Your task to perform on an android device: Go to Google maps Image 0: 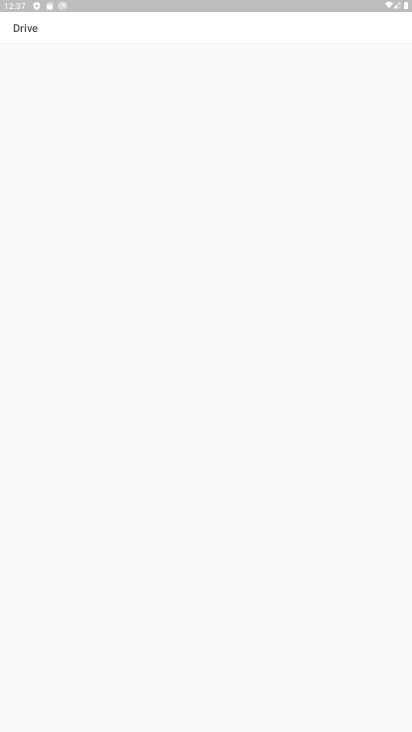
Step 0: press home button
Your task to perform on an android device: Go to Google maps Image 1: 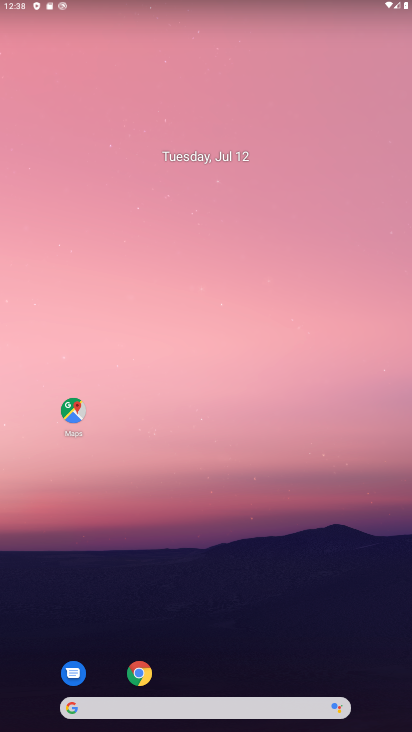
Step 1: click (306, 226)
Your task to perform on an android device: Go to Google maps Image 2: 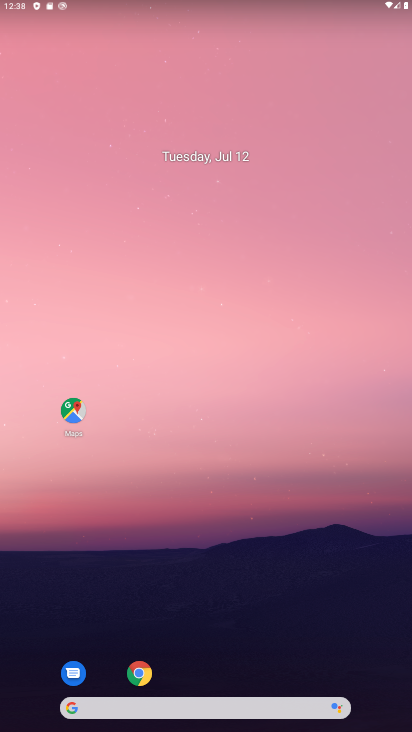
Step 2: drag from (207, 692) to (311, 70)
Your task to perform on an android device: Go to Google maps Image 3: 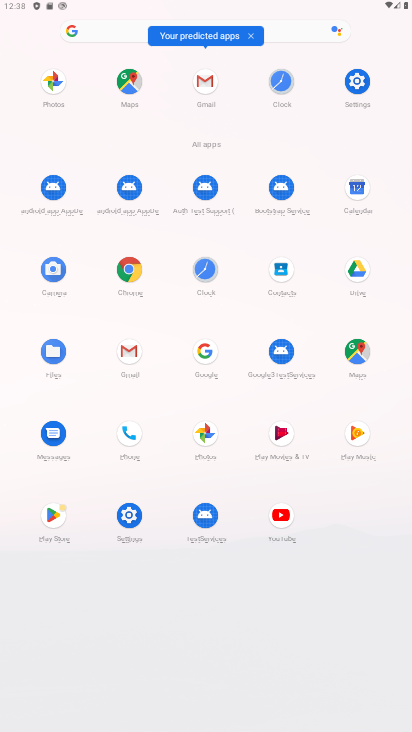
Step 3: click (350, 351)
Your task to perform on an android device: Go to Google maps Image 4: 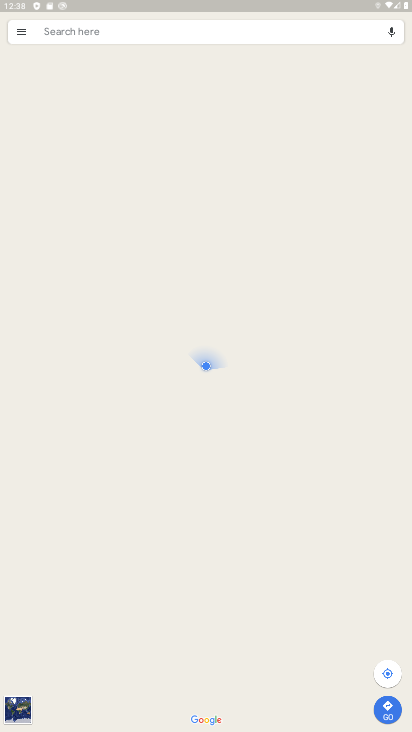
Step 4: task complete